Your task to perform on an android device: stop showing notifications on the lock screen Image 0: 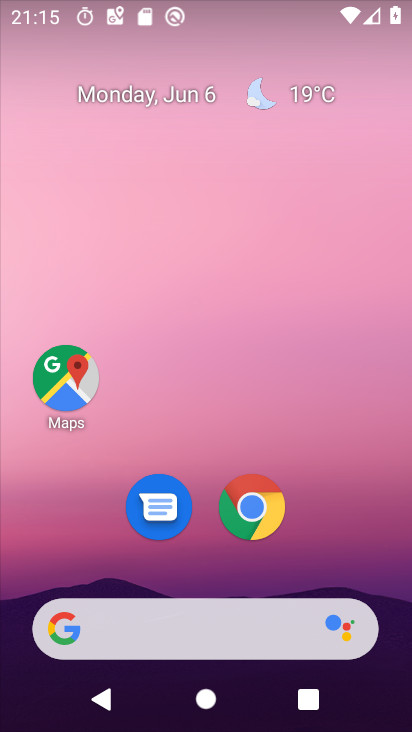
Step 0: press home button
Your task to perform on an android device: stop showing notifications on the lock screen Image 1: 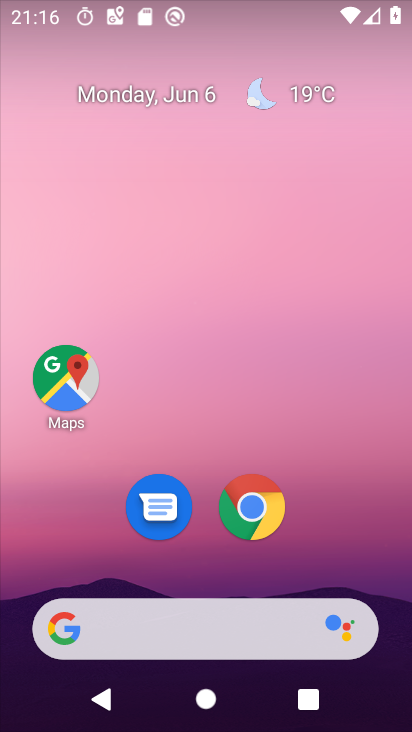
Step 1: drag from (347, 556) to (274, 115)
Your task to perform on an android device: stop showing notifications on the lock screen Image 2: 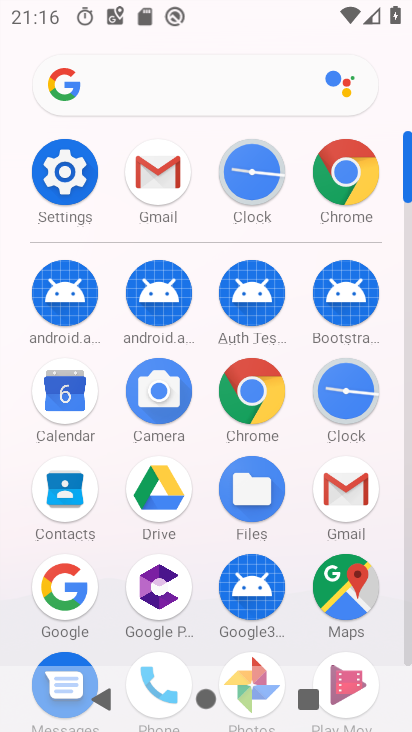
Step 2: click (94, 166)
Your task to perform on an android device: stop showing notifications on the lock screen Image 3: 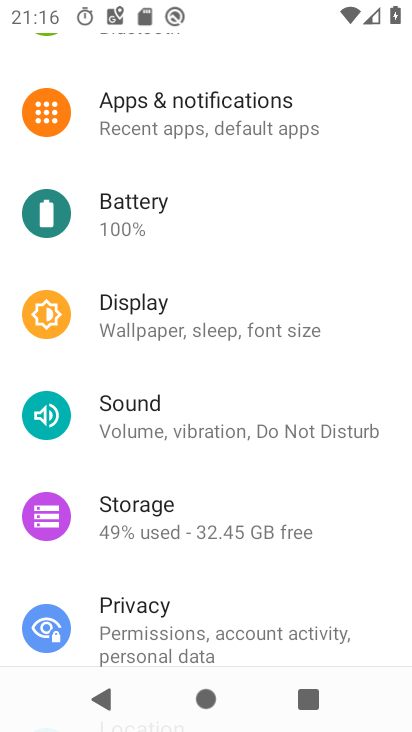
Step 3: drag from (202, 439) to (114, 720)
Your task to perform on an android device: stop showing notifications on the lock screen Image 4: 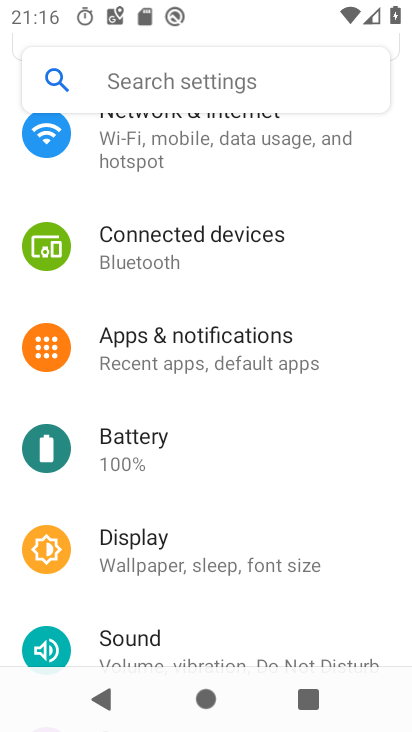
Step 4: click (89, 324)
Your task to perform on an android device: stop showing notifications on the lock screen Image 5: 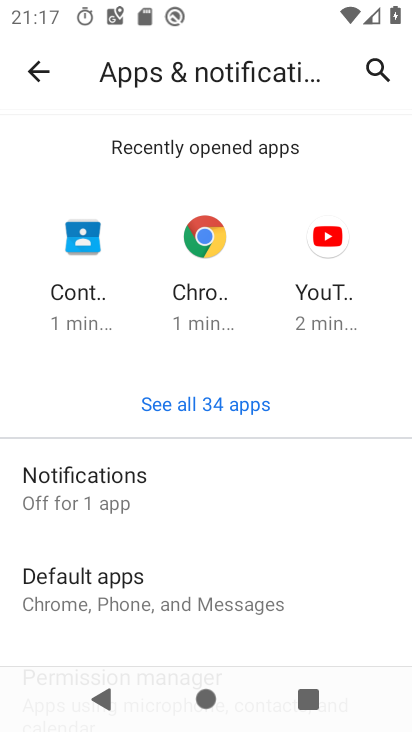
Step 5: click (147, 477)
Your task to perform on an android device: stop showing notifications on the lock screen Image 6: 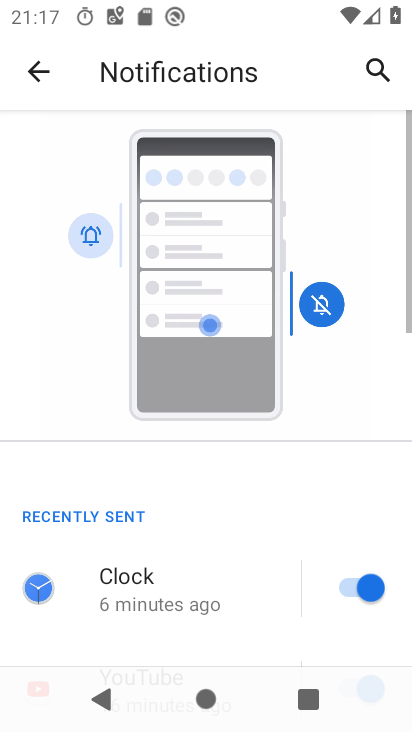
Step 6: drag from (244, 574) to (244, 62)
Your task to perform on an android device: stop showing notifications on the lock screen Image 7: 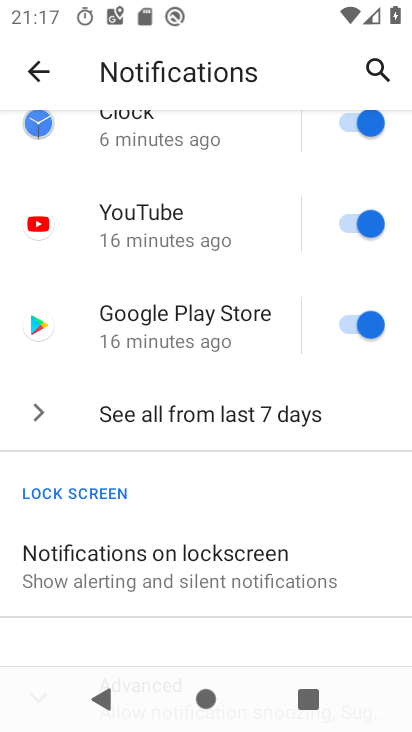
Step 7: click (230, 530)
Your task to perform on an android device: stop showing notifications on the lock screen Image 8: 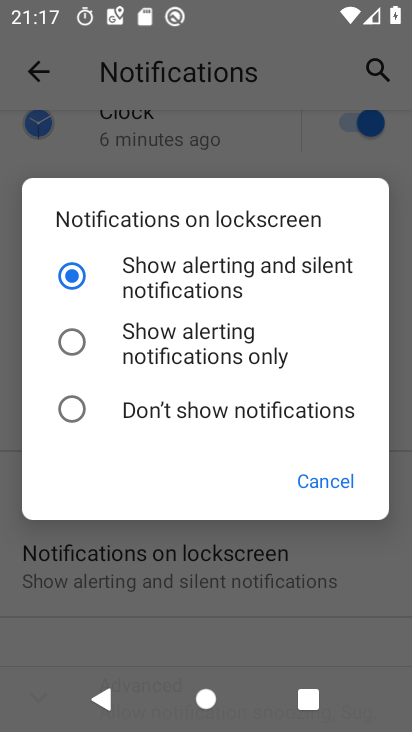
Step 8: click (126, 405)
Your task to perform on an android device: stop showing notifications on the lock screen Image 9: 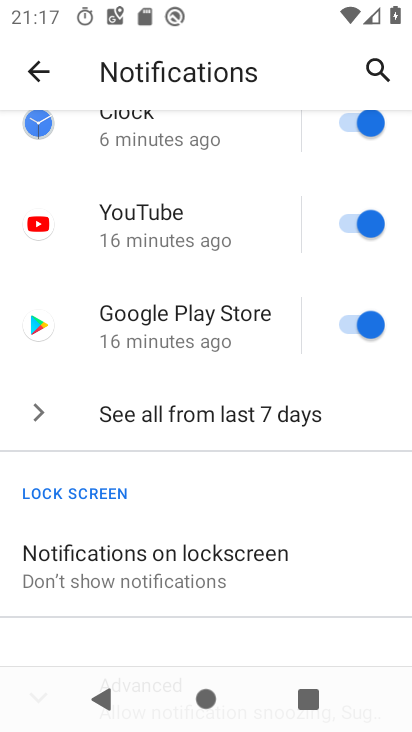
Step 9: task complete